Your task to perform on an android device: Google the capital of Bolivia Image 0: 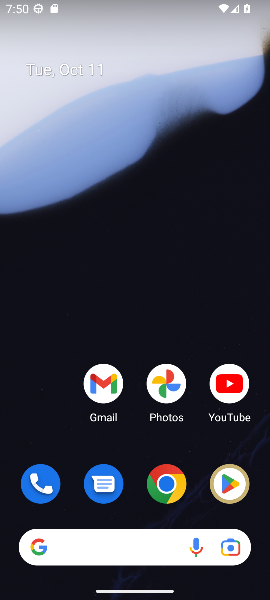
Step 0: drag from (42, 518) to (119, 23)
Your task to perform on an android device: Google the capital of Bolivia Image 1: 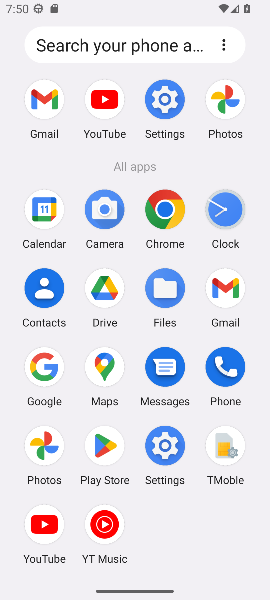
Step 1: click (151, 212)
Your task to perform on an android device: Google the capital of Bolivia Image 2: 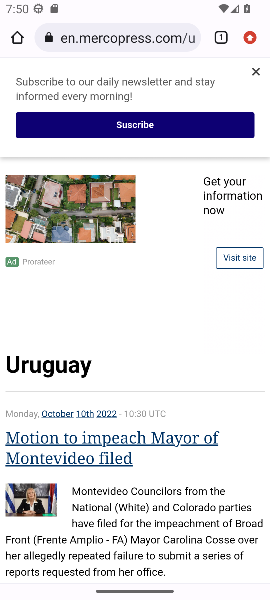
Step 2: click (133, 33)
Your task to perform on an android device: Google the capital of Bolivia Image 3: 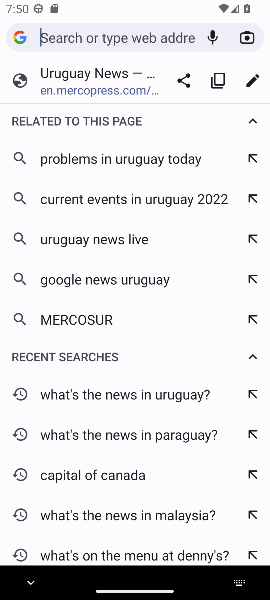
Step 3: type "capital of Bolivia"
Your task to perform on an android device: Google the capital of Bolivia Image 4: 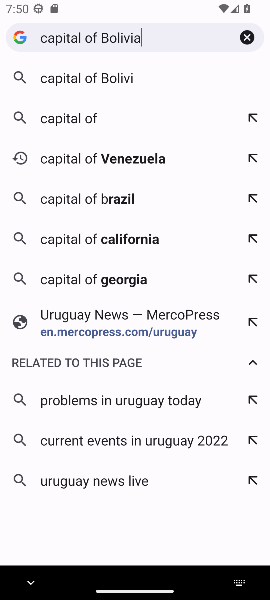
Step 4: press enter
Your task to perform on an android device: Google the capital of Bolivia Image 5: 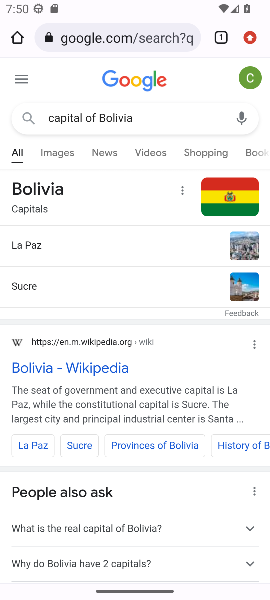
Step 5: task complete